Your task to perform on an android device: Search for pizza restaurants on Maps Image 0: 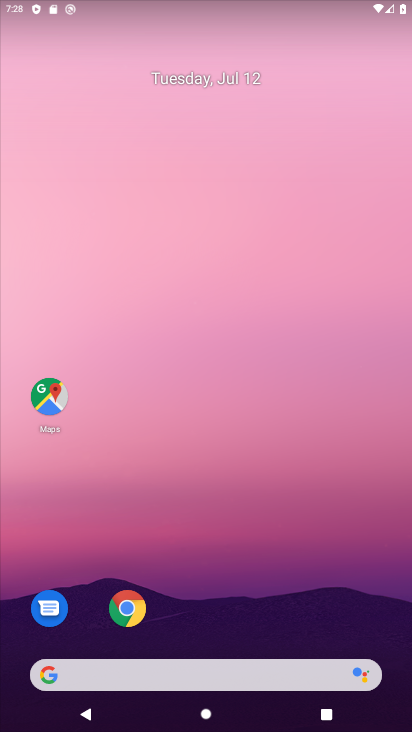
Step 0: click (58, 394)
Your task to perform on an android device: Search for pizza restaurants on Maps Image 1: 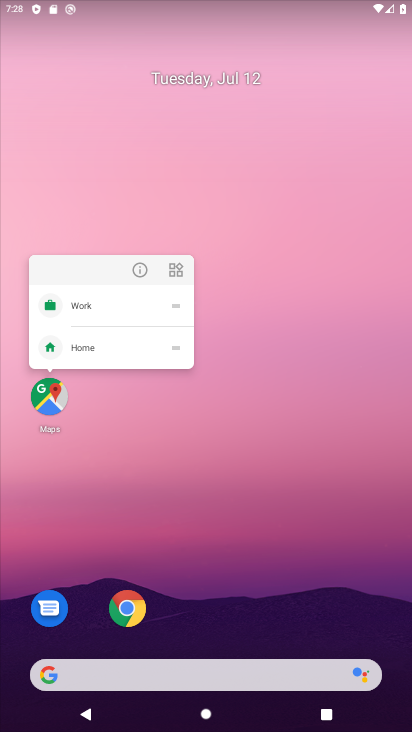
Step 1: click (58, 391)
Your task to perform on an android device: Search for pizza restaurants on Maps Image 2: 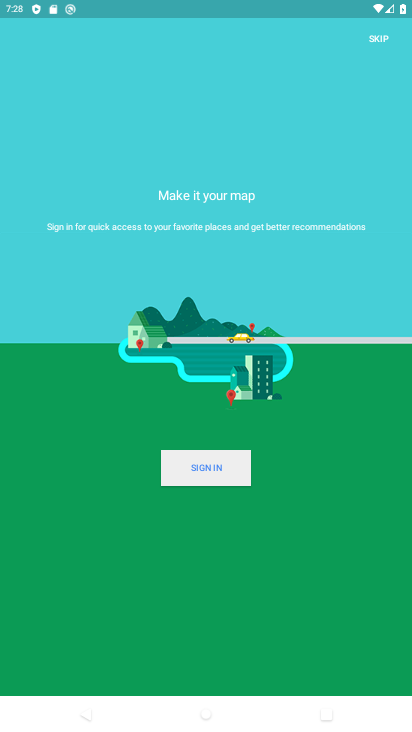
Step 2: click (378, 32)
Your task to perform on an android device: Search for pizza restaurants on Maps Image 3: 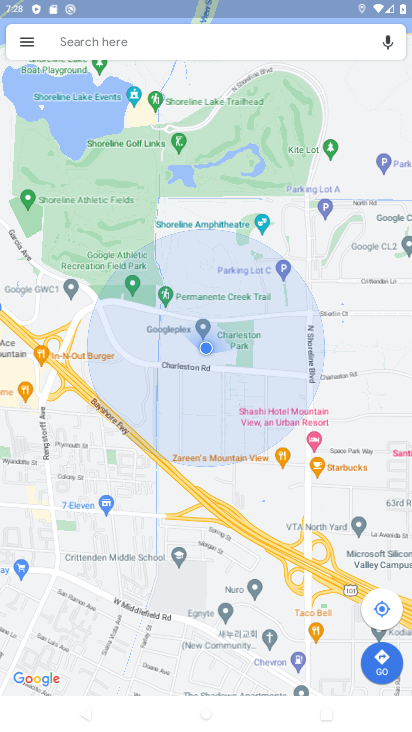
Step 3: click (237, 38)
Your task to perform on an android device: Search for pizza restaurants on Maps Image 4: 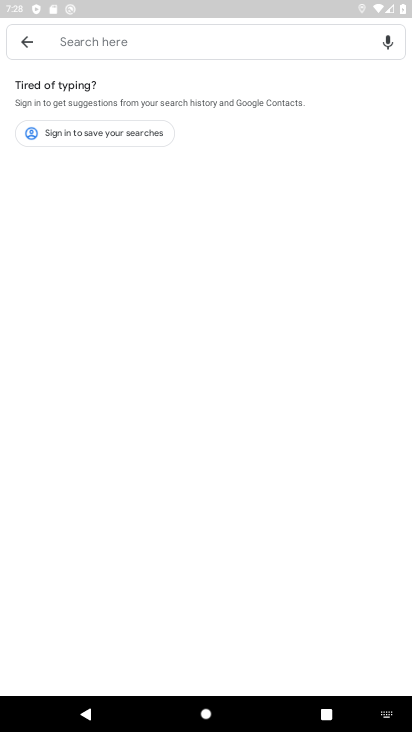
Step 4: type "pizza restaurants "
Your task to perform on an android device: Search for pizza restaurants on Maps Image 5: 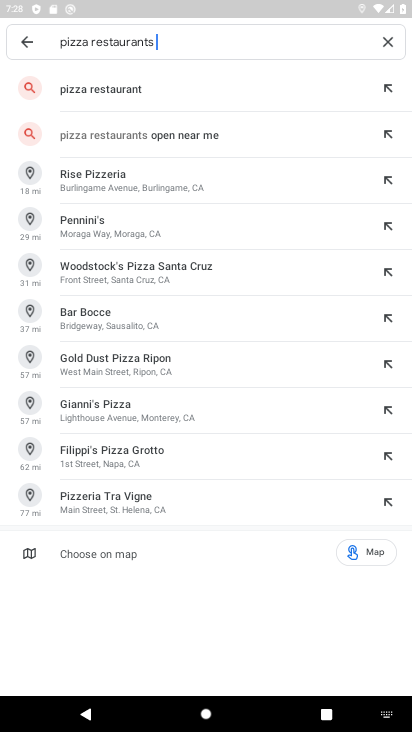
Step 5: click (218, 88)
Your task to perform on an android device: Search for pizza restaurants on Maps Image 6: 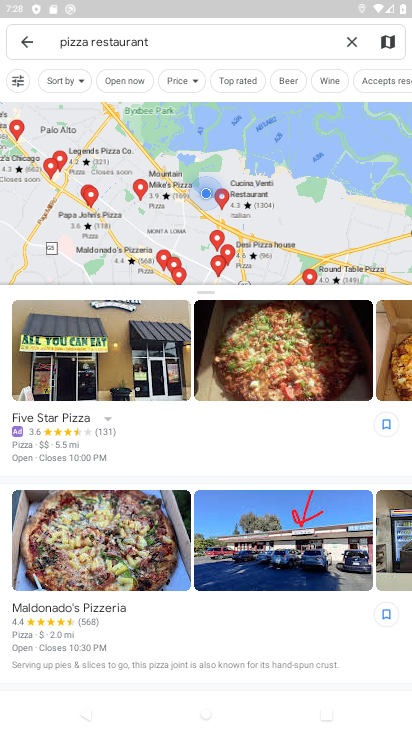
Step 6: task complete